Your task to perform on an android device: turn off location history Image 0: 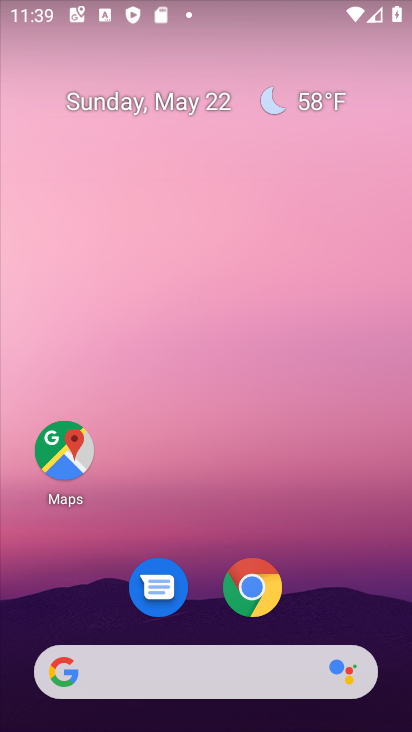
Step 0: drag from (254, 517) to (284, 38)
Your task to perform on an android device: turn off location history Image 1: 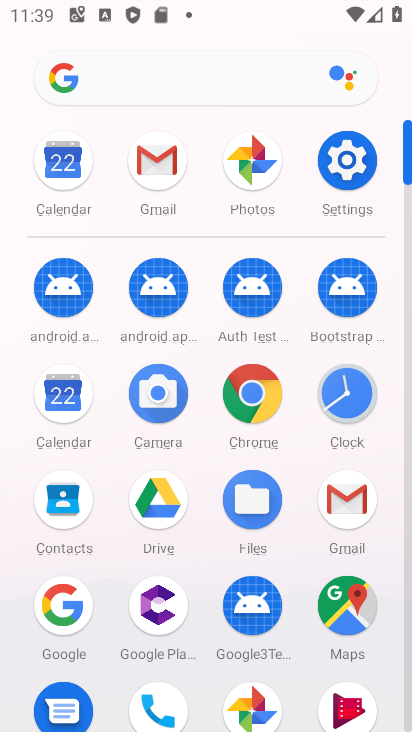
Step 1: click (347, 146)
Your task to perform on an android device: turn off location history Image 2: 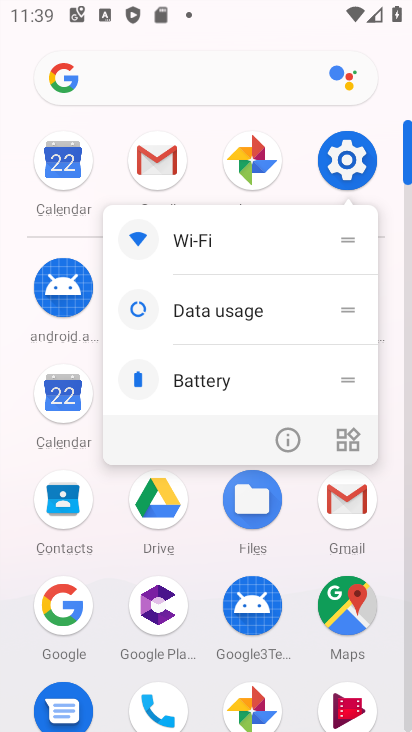
Step 2: click (355, 161)
Your task to perform on an android device: turn off location history Image 3: 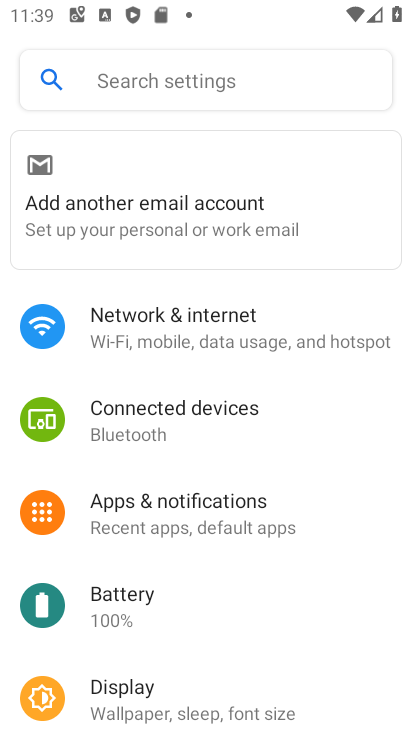
Step 3: drag from (217, 603) to (211, 128)
Your task to perform on an android device: turn off location history Image 4: 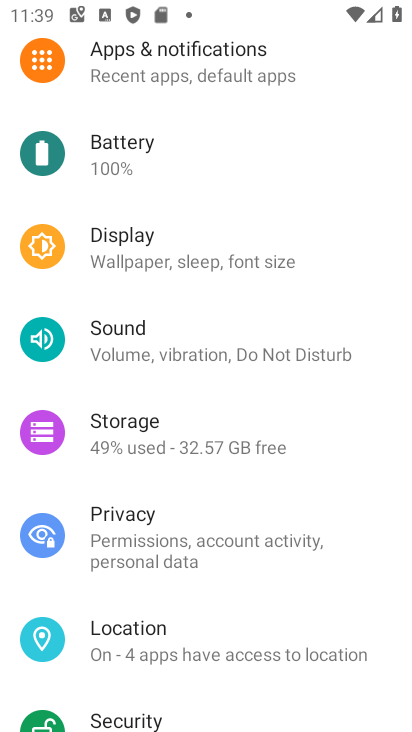
Step 4: click (196, 639)
Your task to perform on an android device: turn off location history Image 5: 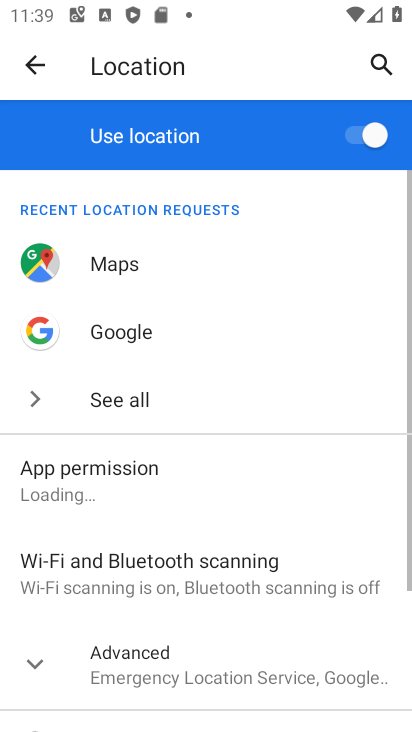
Step 5: drag from (228, 596) to (256, 196)
Your task to perform on an android device: turn off location history Image 6: 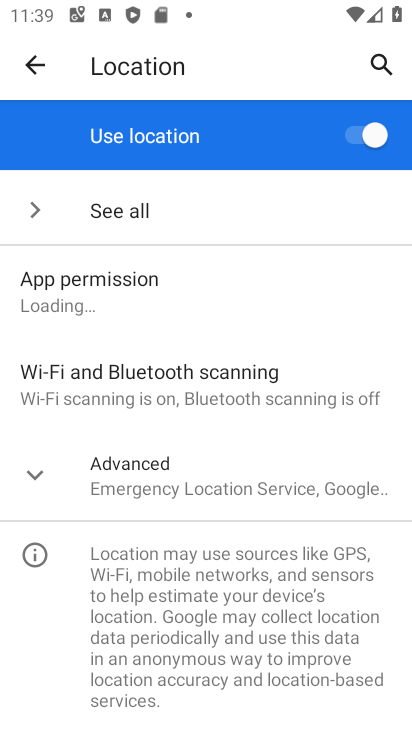
Step 6: click (30, 472)
Your task to perform on an android device: turn off location history Image 7: 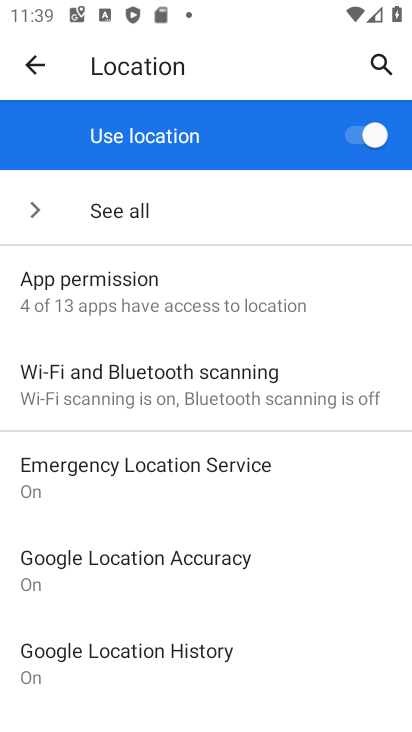
Step 7: click (171, 658)
Your task to perform on an android device: turn off location history Image 8: 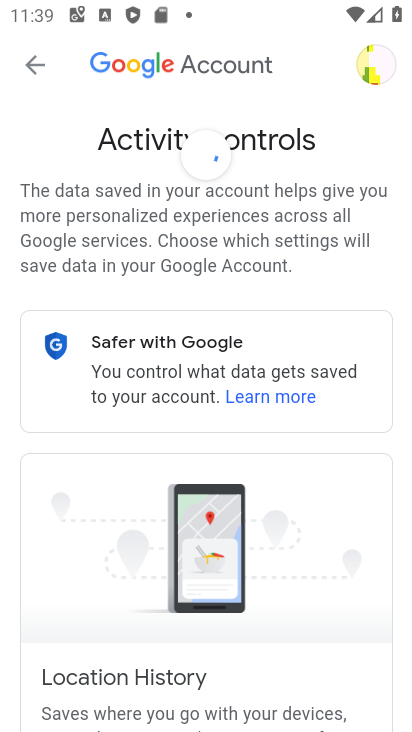
Step 8: drag from (304, 408) to (332, 58)
Your task to perform on an android device: turn off location history Image 9: 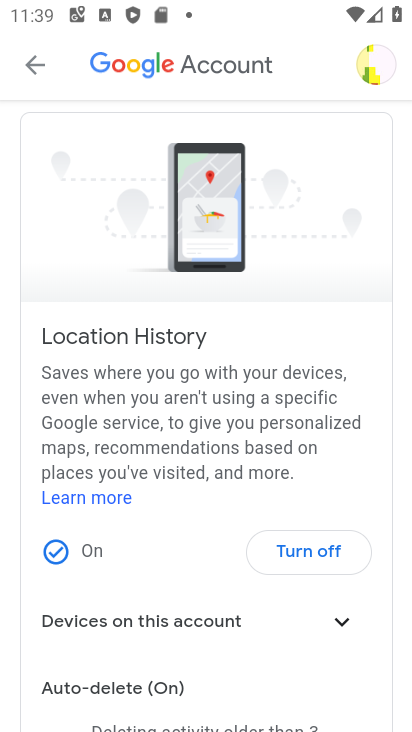
Step 9: click (297, 540)
Your task to perform on an android device: turn off location history Image 10: 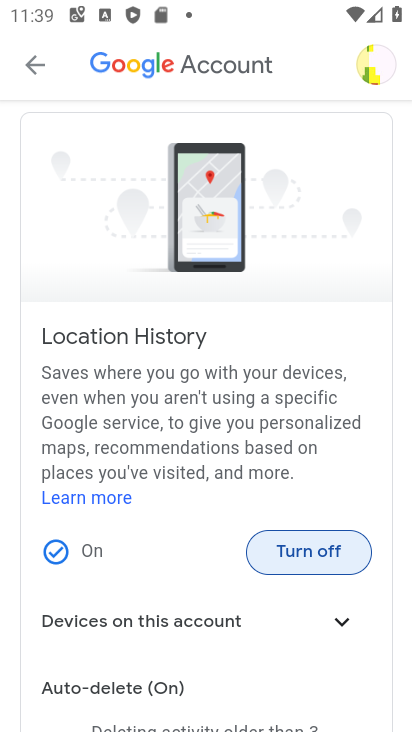
Step 10: click (308, 542)
Your task to perform on an android device: turn off location history Image 11: 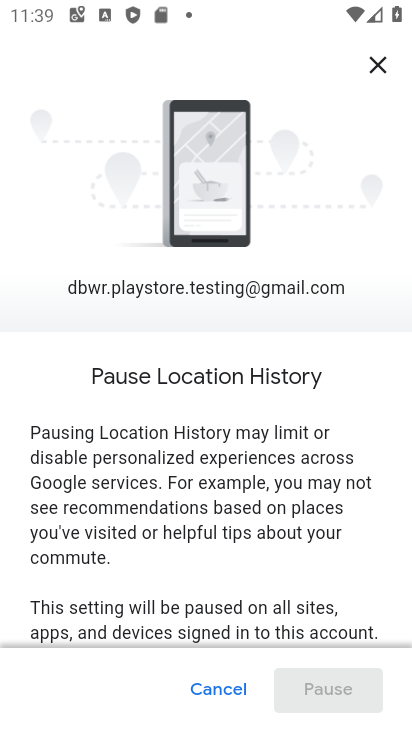
Step 11: drag from (304, 557) to (339, 135)
Your task to perform on an android device: turn off location history Image 12: 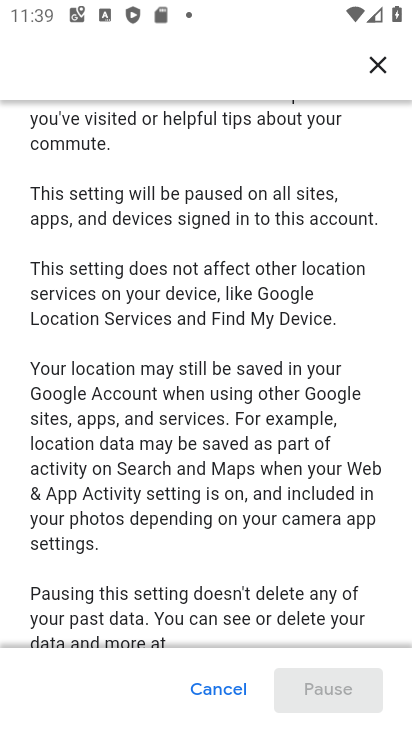
Step 12: drag from (262, 567) to (314, 187)
Your task to perform on an android device: turn off location history Image 13: 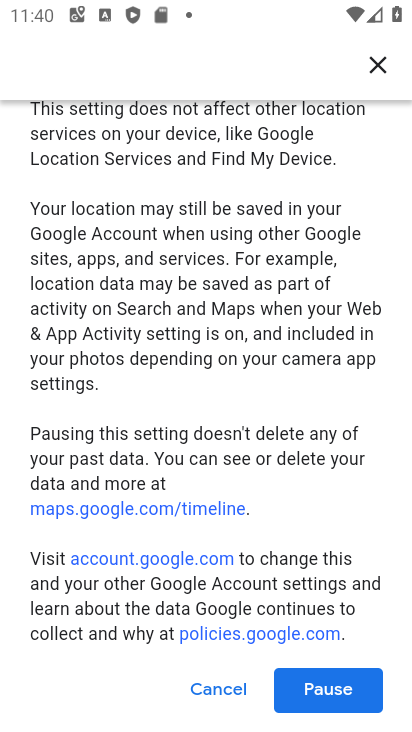
Step 13: click (307, 682)
Your task to perform on an android device: turn off location history Image 14: 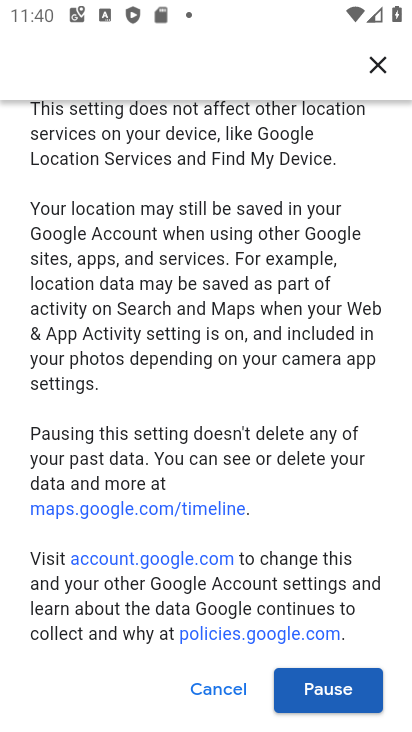
Step 14: click (317, 685)
Your task to perform on an android device: turn off location history Image 15: 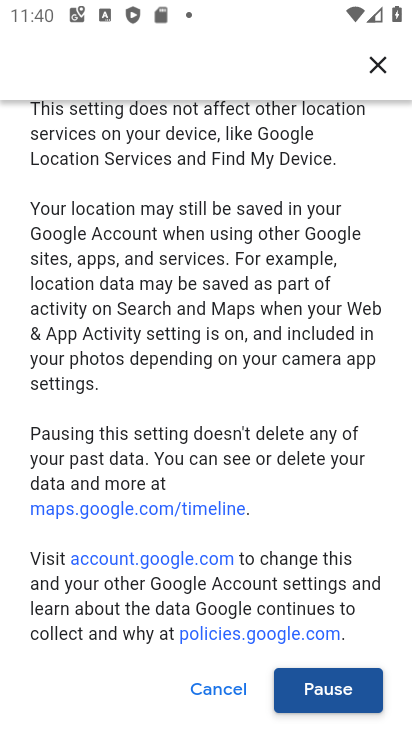
Step 15: click (317, 685)
Your task to perform on an android device: turn off location history Image 16: 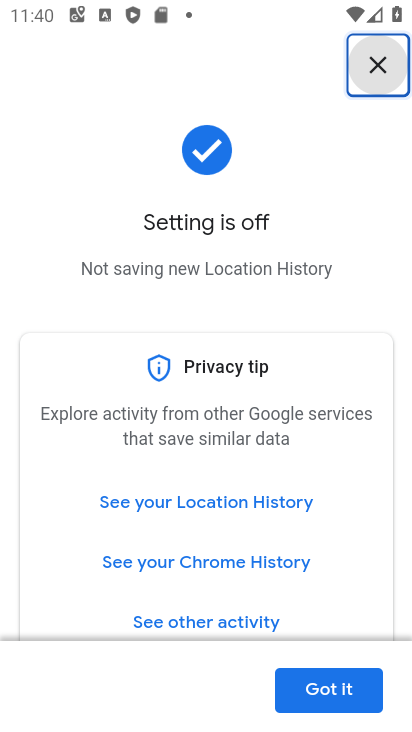
Step 16: click (334, 685)
Your task to perform on an android device: turn off location history Image 17: 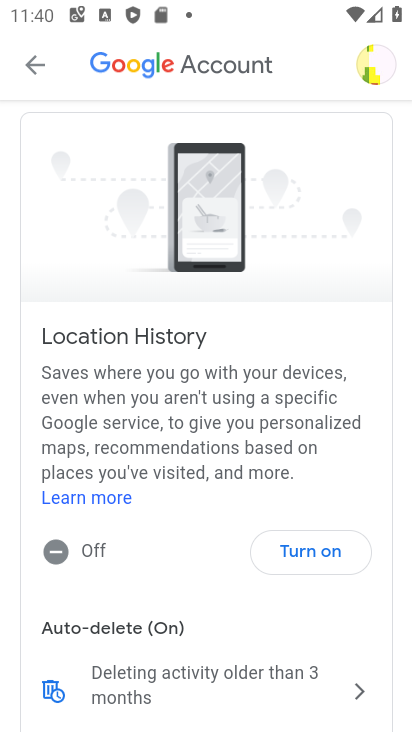
Step 17: task complete